Your task to perform on an android device: Open the web browser Image 0: 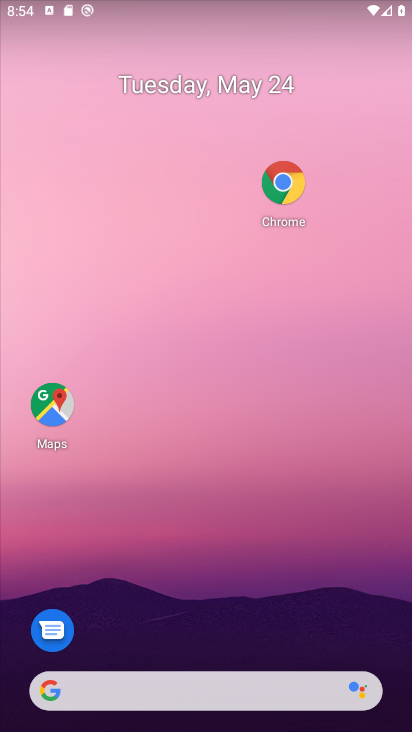
Step 0: press home button
Your task to perform on an android device: Open the web browser Image 1: 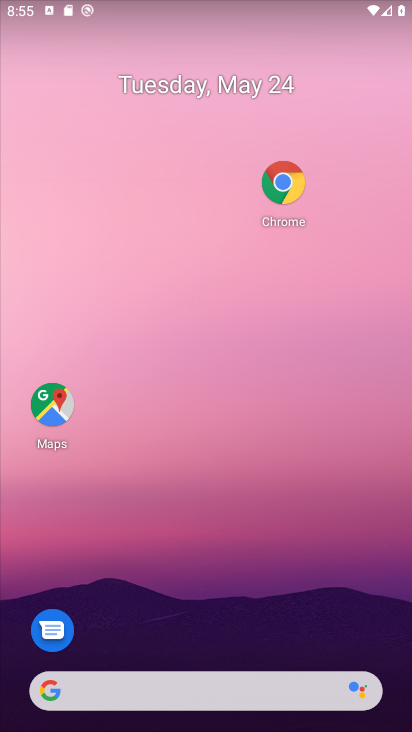
Step 1: drag from (227, 688) to (305, 37)
Your task to perform on an android device: Open the web browser Image 2: 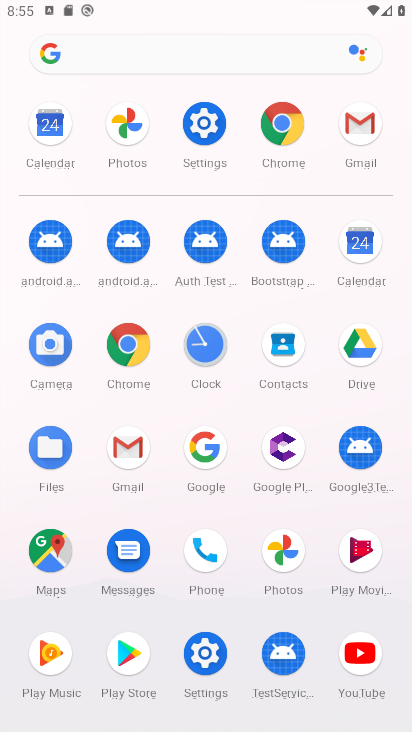
Step 2: click (284, 142)
Your task to perform on an android device: Open the web browser Image 3: 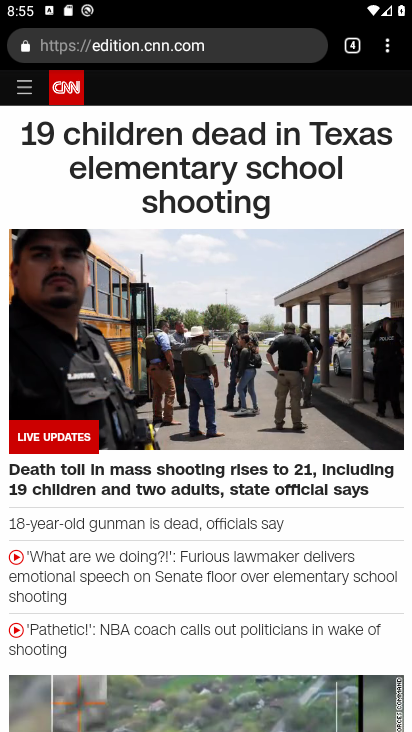
Step 3: click (389, 44)
Your task to perform on an android device: Open the web browser Image 4: 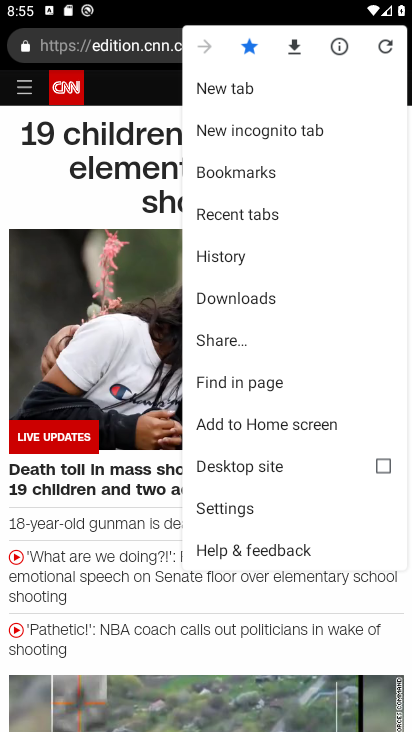
Step 4: click (257, 86)
Your task to perform on an android device: Open the web browser Image 5: 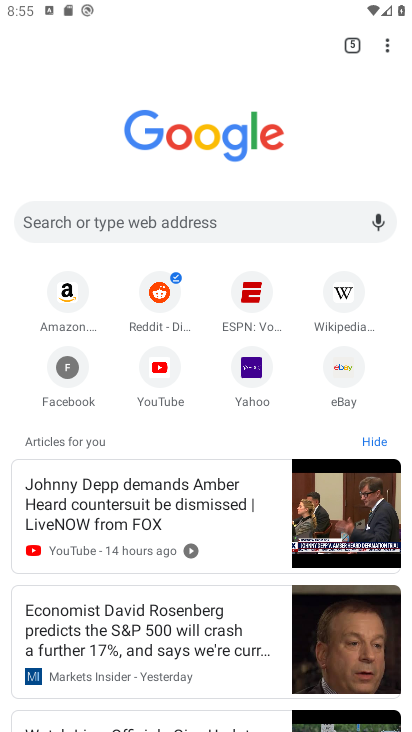
Step 5: click (165, 218)
Your task to perform on an android device: Open the web browser Image 6: 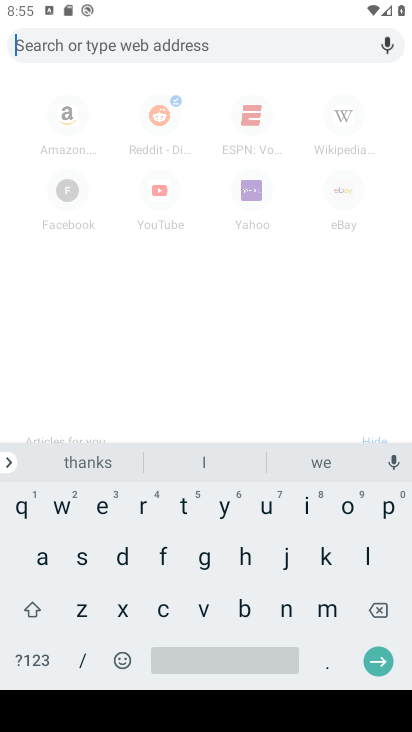
Step 6: task complete